Your task to perform on an android device: add a contact Image 0: 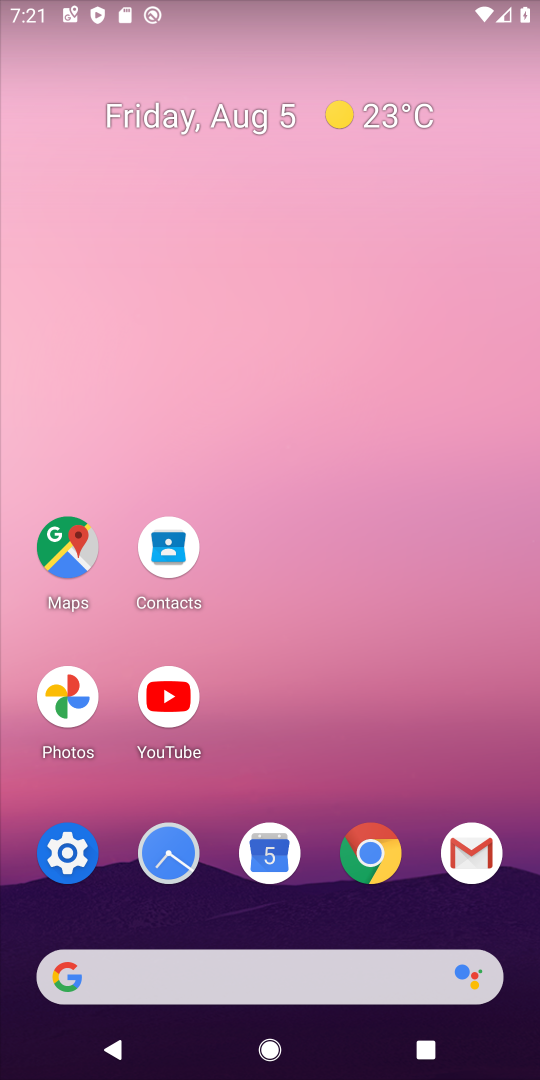
Step 0: click (166, 554)
Your task to perform on an android device: add a contact Image 1: 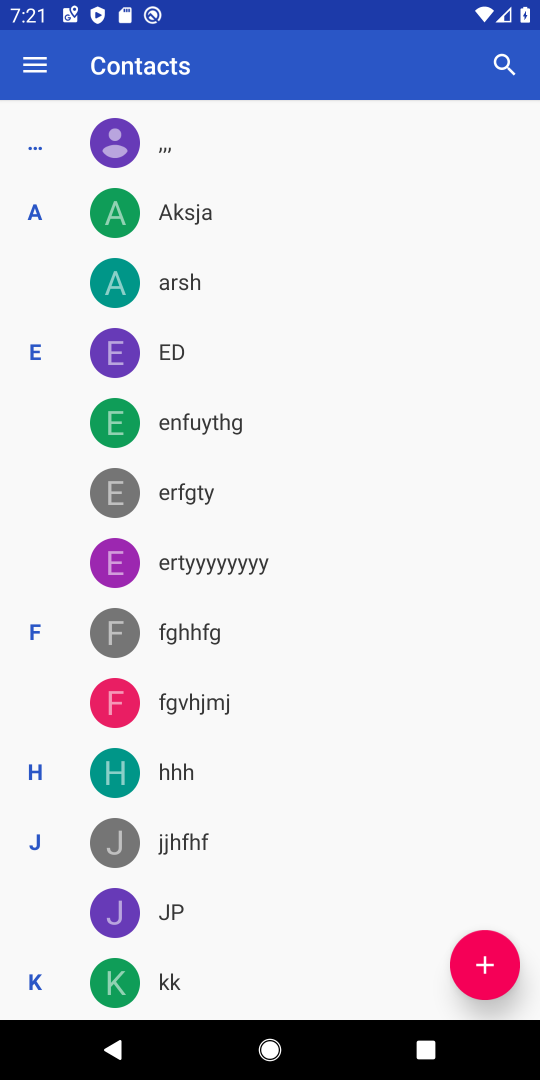
Step 1: click (484, 963)
Your task to perform on an android device: add a contact Image 2: 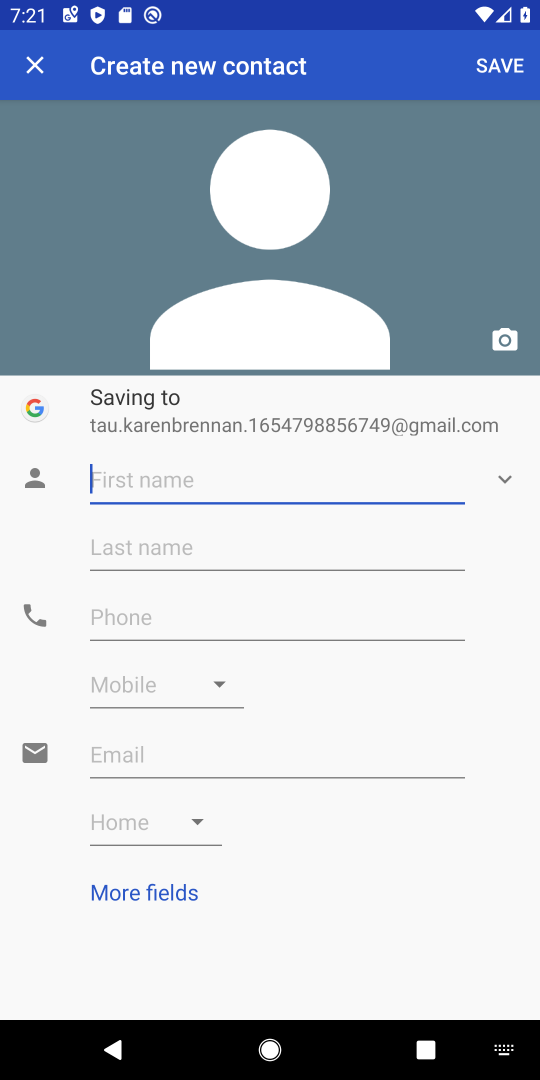
Step 2: type "mmmm"
Your task to perform on an android device: add a contact Image 3: 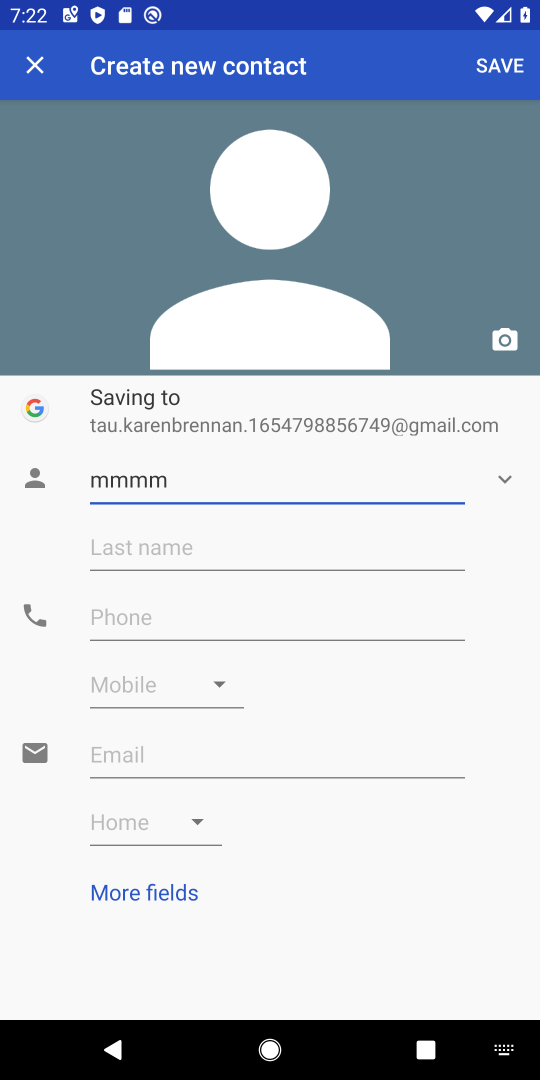
Step 3: click (260, 630)
Your task to perform on an android device: add a contact Image 4: 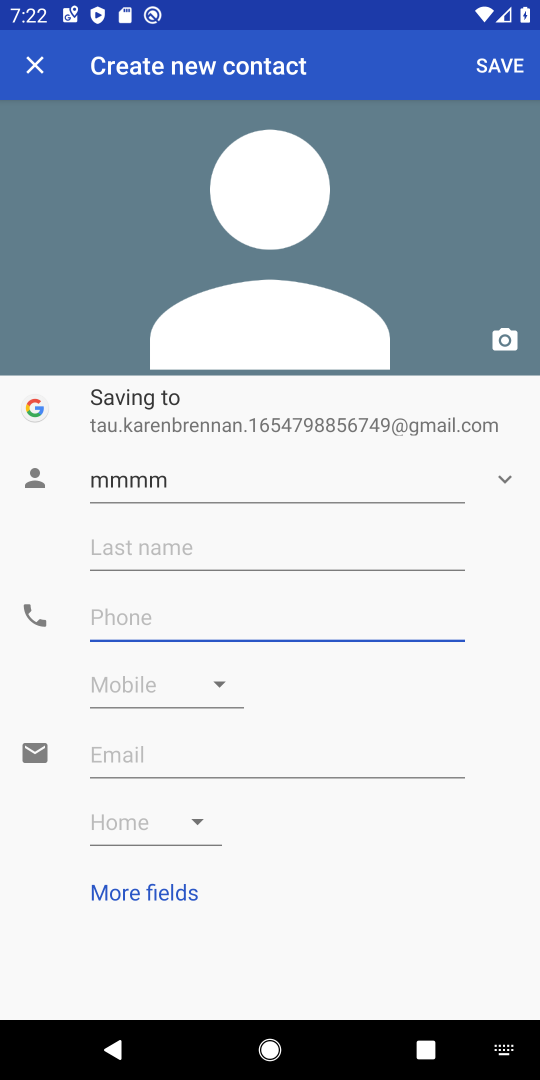
Step 4: type "00000"
Your task to perform on an android device: add a contact Image 5: 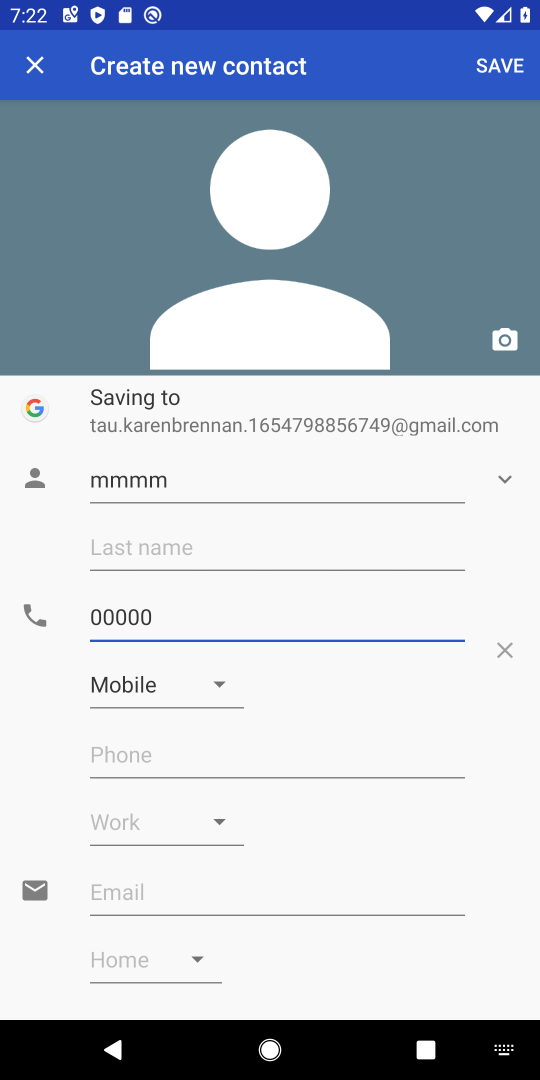
Step 5: click (507, 68)
Your task to perform on an android device: add a contact Image 6: 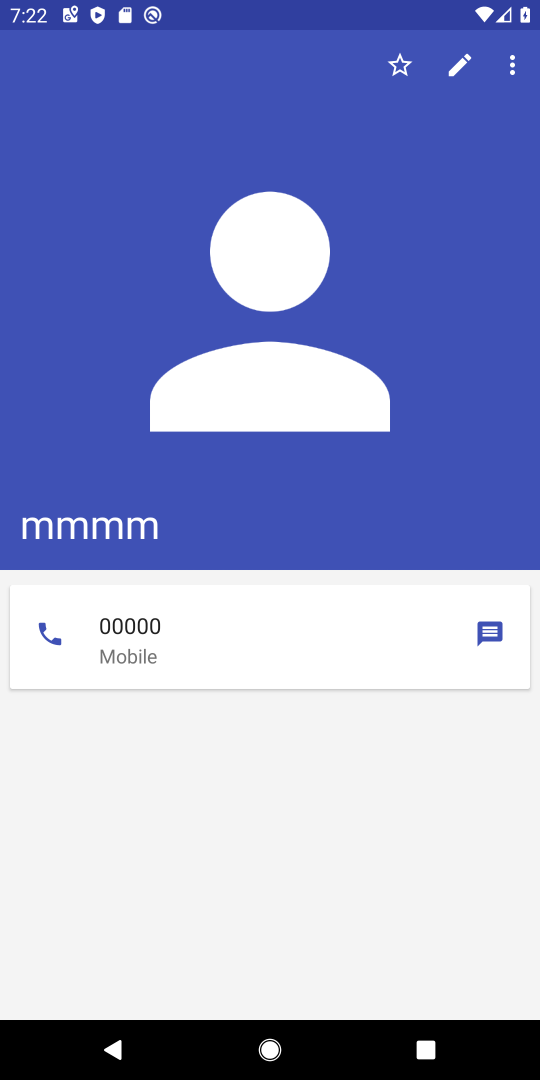
Step 6: task complete